Your task to perform on an android device: Search for a 3D printer on aliexpress. Image 0: 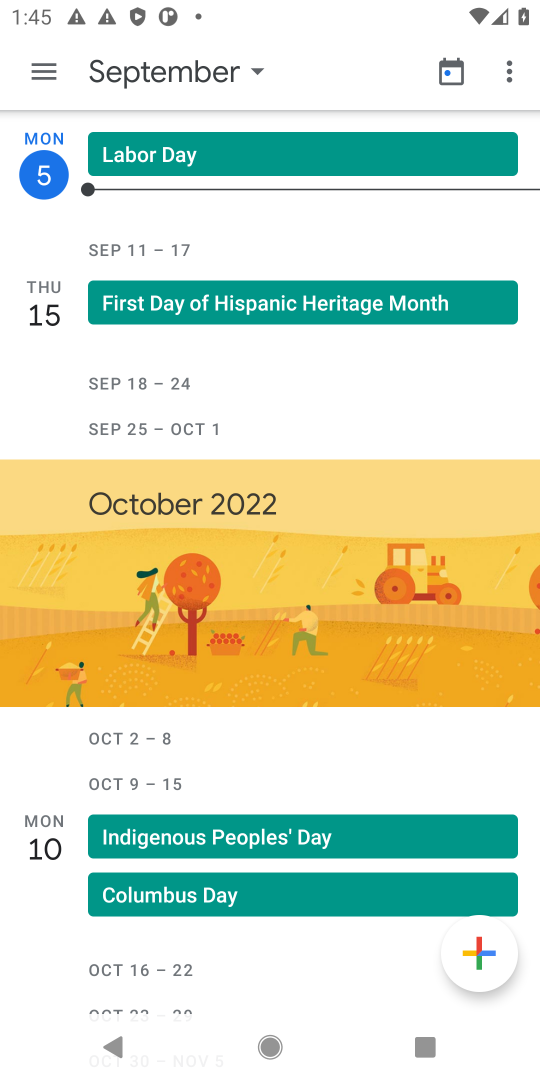
Step 0: press home button
Your task to perform on an android device: Search for a 3D printer on aliexpress. Image 1: 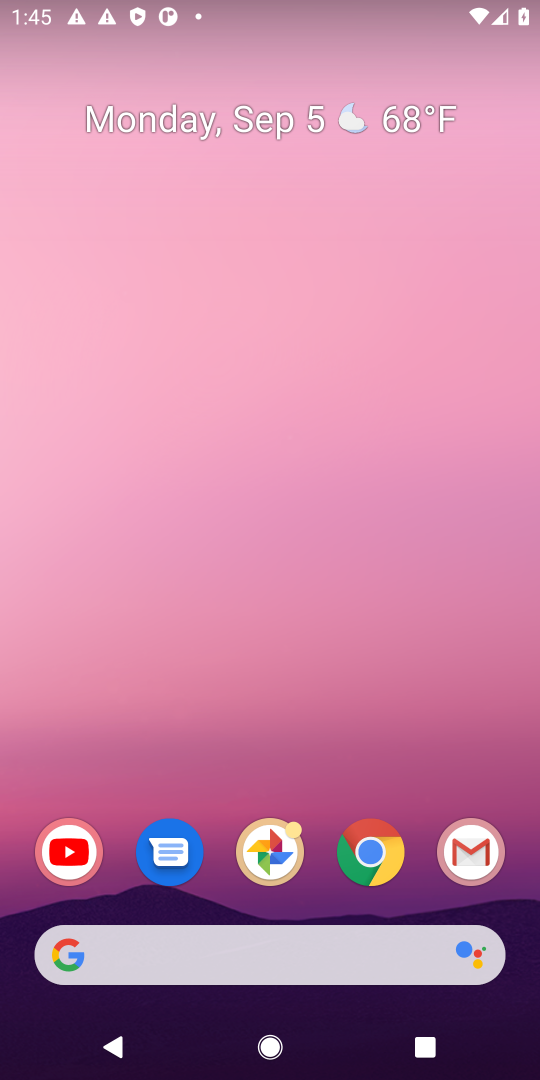
Step 1: click (374, 840)
Your task to perform on an android device: Search for a 3D printer on aliexpress. Image 2: 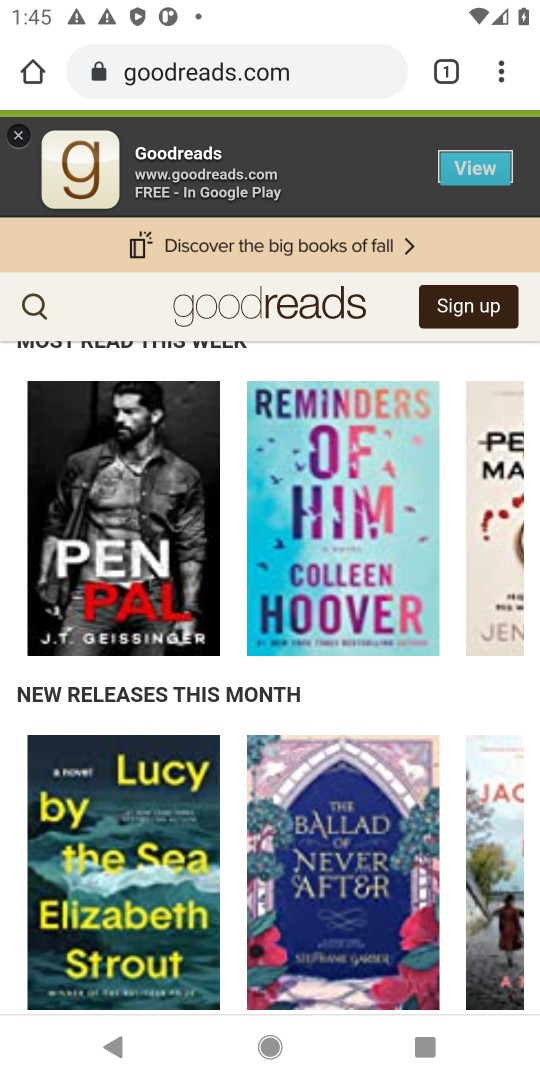
Step 2: click (304, 72)
Your task to perform on an android device: Search for a 3D printer on aliexpress. Image 3: 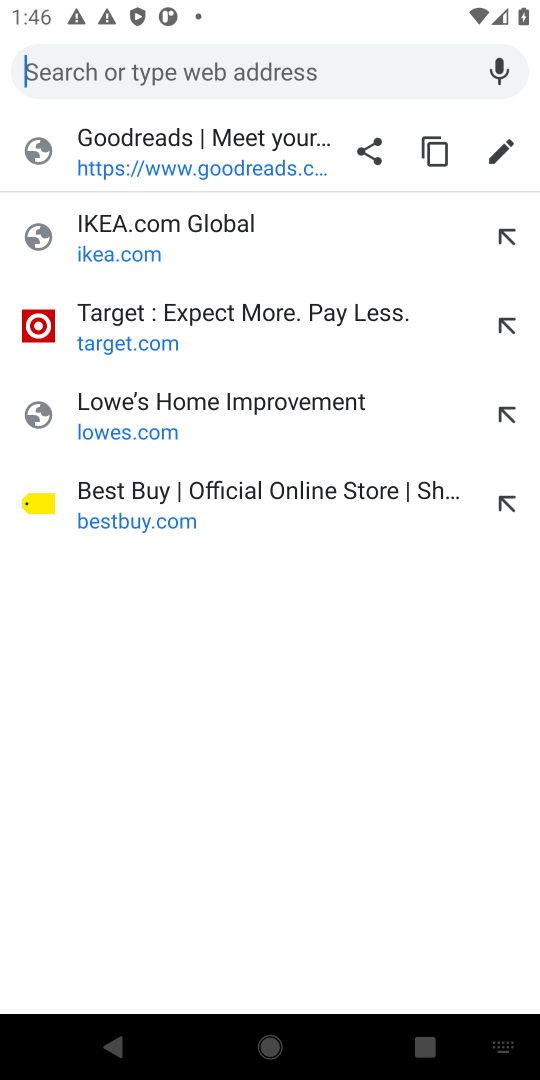
Step 3: type "Aliexpress"
Your task to perform on an android device: Search for a 3D printer on aliexpress. Image 4: 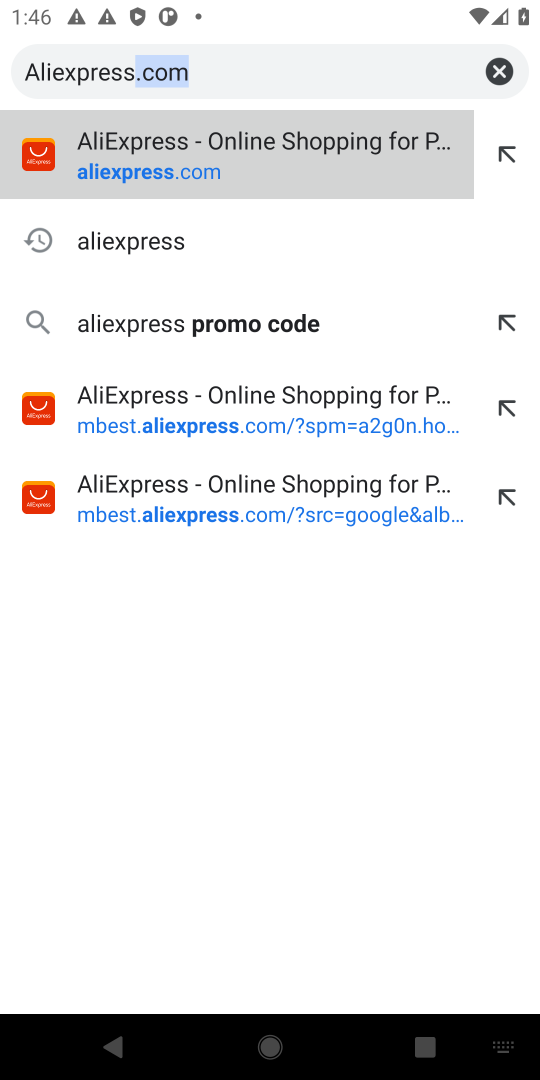
Step 4: click (132, 134)
Your task to perform on an android device: Search for a 3D printer on aliexpress. Image 5: 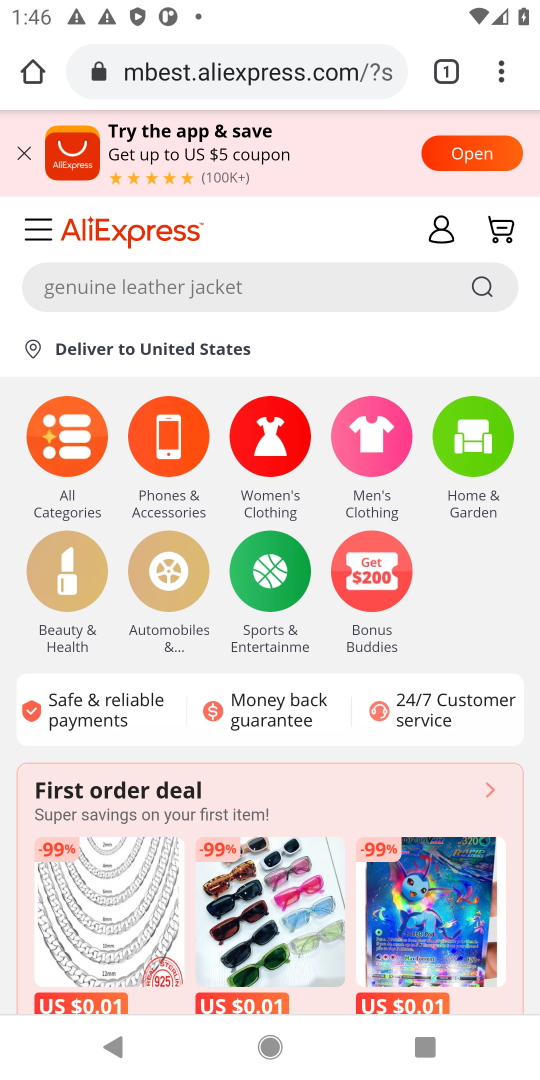
Step 5: click (155, 285)
Your task to perform on an android device: Search for a 3D printer on aliexpress. Image 6: 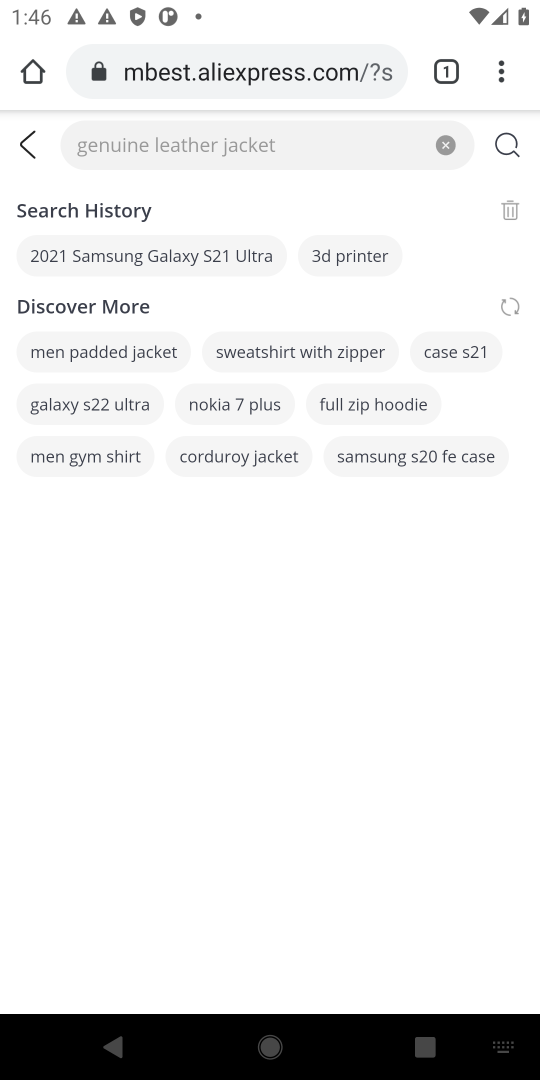
Step 6: type " 3D printer"
Your task to perform on an android device: Search for a 3D printer on aliexpress. Image 7: 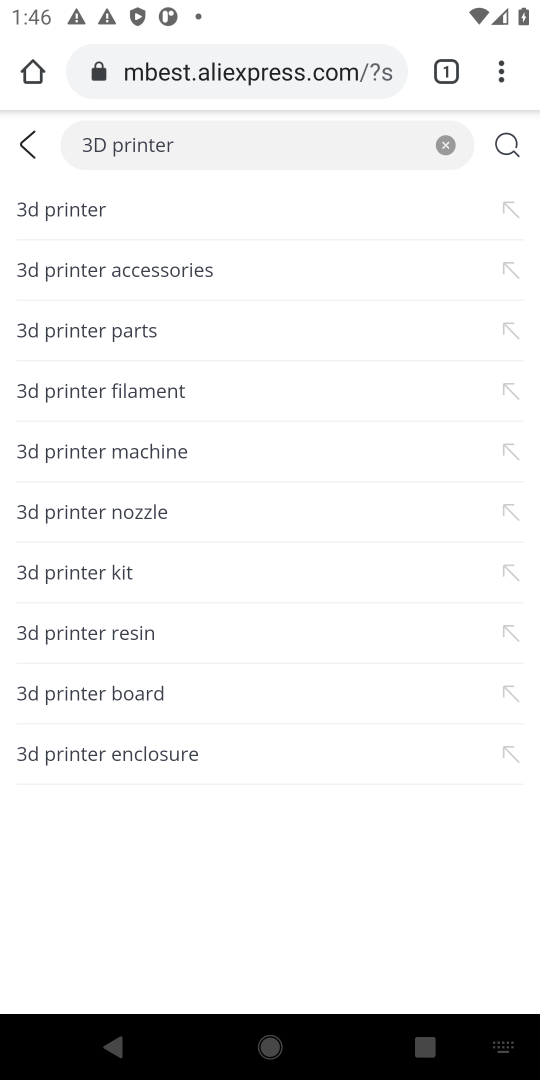
Step 7: click (56, 200)
Your task to perform on an android device: Search for a 3D printer on aliexpress. Image 8: 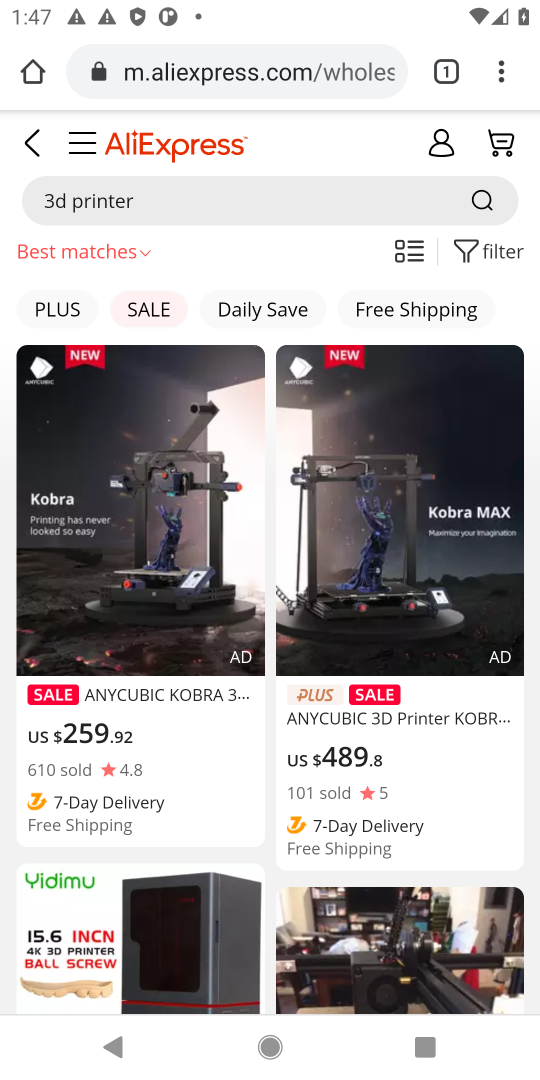
Step 8: drag from (265, 856) to (275, 613)
Your task to perform on an android device: Search for a 3D printer on aliexpress. Image 9: 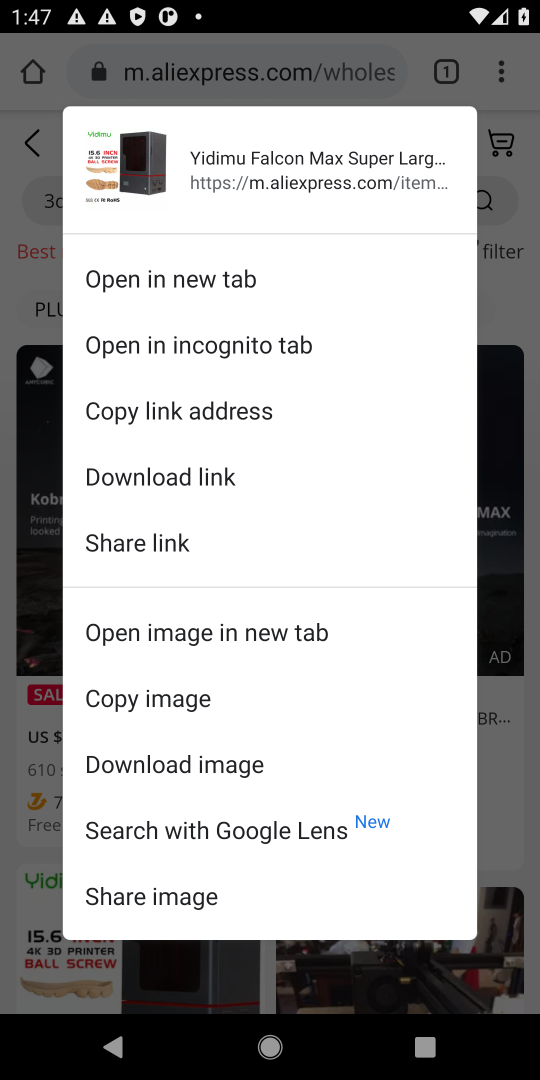
Step 9: click (530, 819)
Your task to perform on an android device: Search for a 3D printer on aliexpress. Image 10: 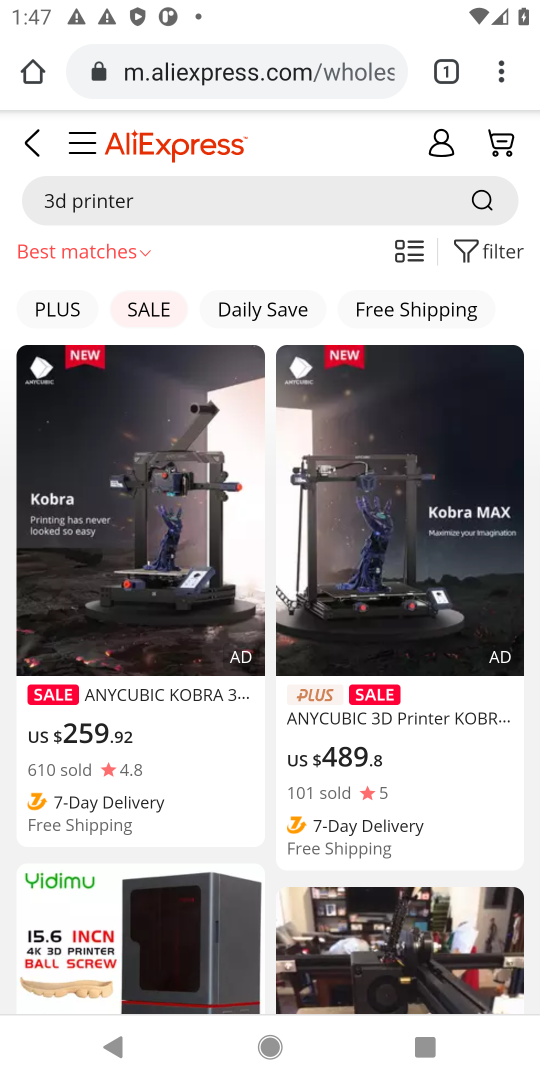
Step 10: drag from (538, 745) to (530, 577)
Your task to perform on an android device: Search for a 3D printer on aliexpress. Image 11: 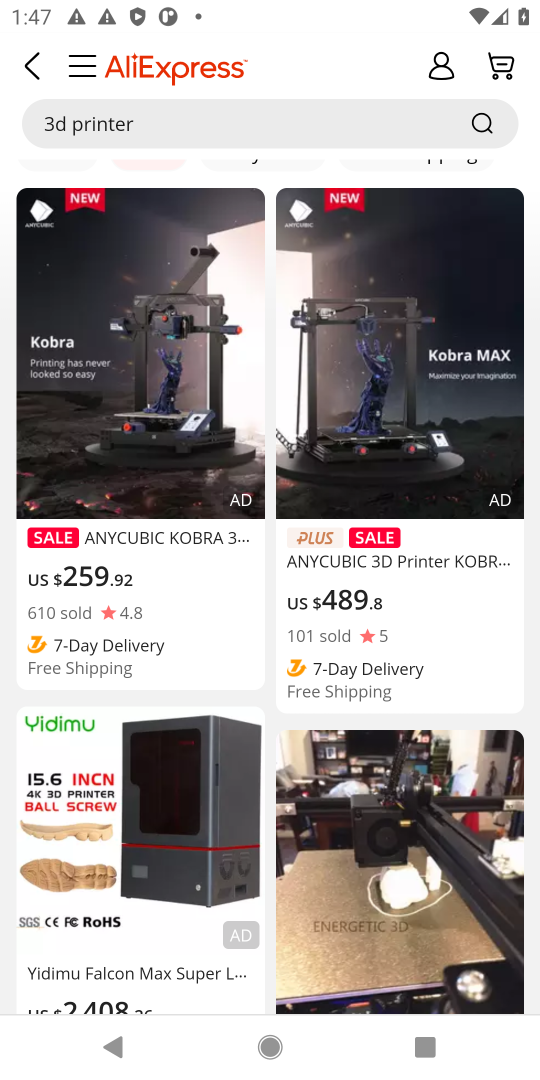
Step 11: drag from (533, 706) to (527, 494)
Your task to perform on an android device: Search for a 3D printer on aliexpress. Image 12: 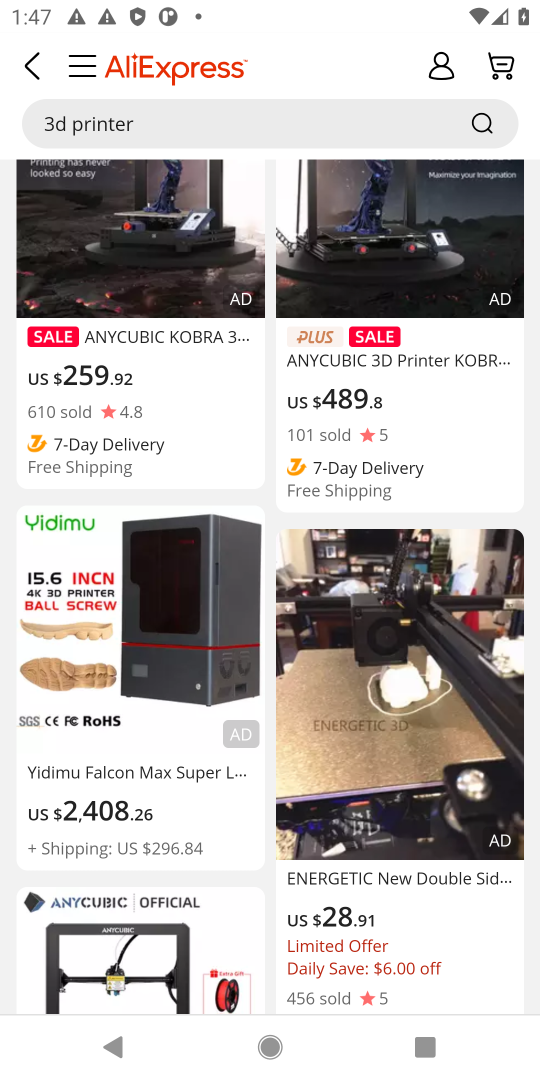
Step 12: drag from (533, 975) to (537, 362)
Your task to perform on an android device: Search for a 3D printer on aliexpress. Image 13: 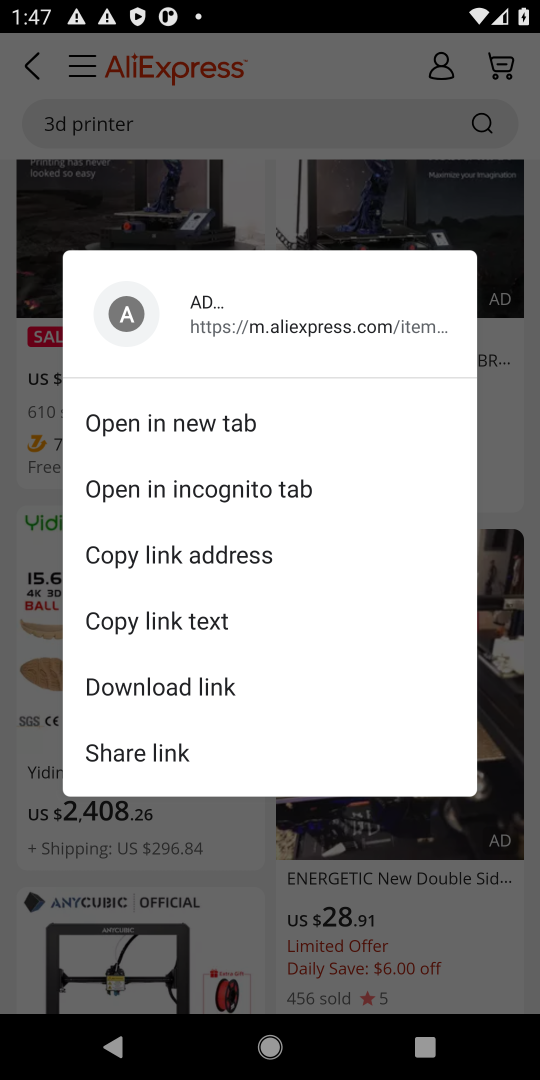
Step 13: click (470, 831)
Your task to perform on an android device: Search for a 3D printer on aliexpress. Image 14: 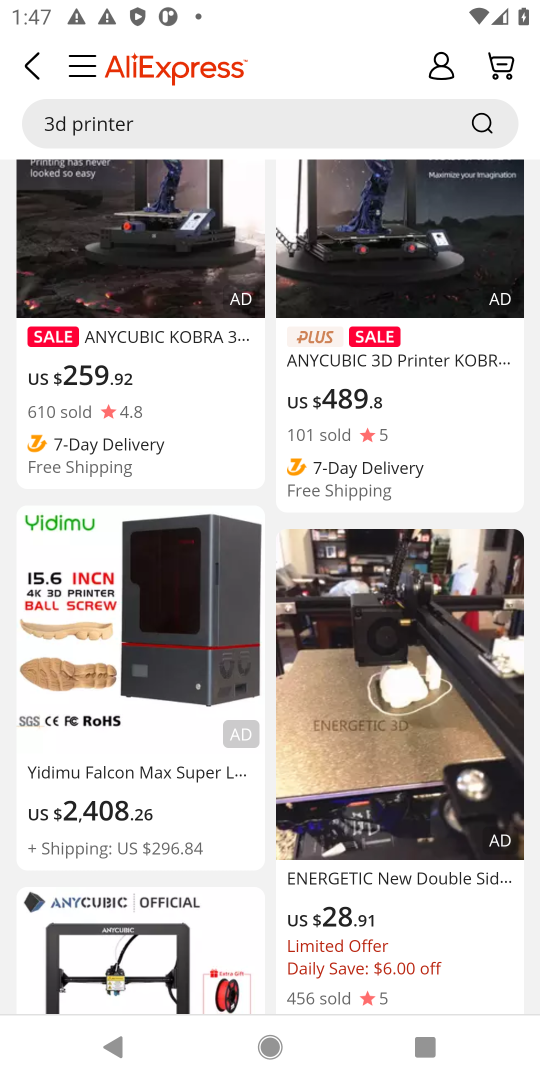
Step 14: task complete